Your task to perform on an android device: Add beats solo 3 to the cart on target, then select checkout. Image 0: 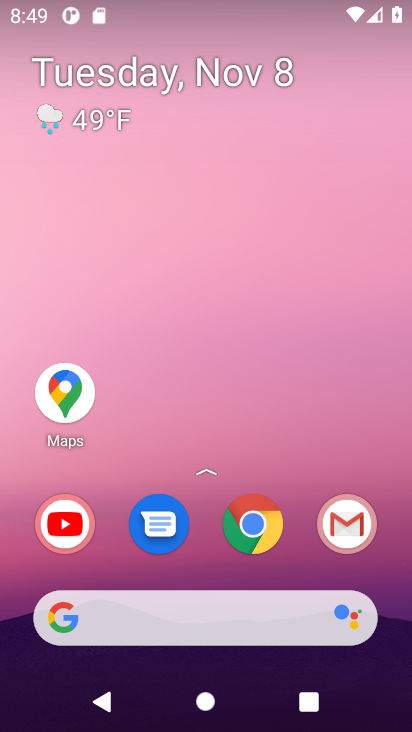
Step 0: click (262, 523)
Your task to perform on an android device: Add beats solo 3 to the cart on target, then select checkout. Image 1: 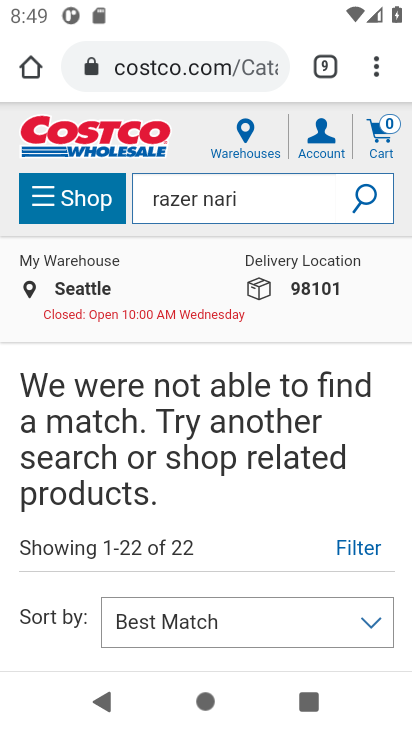
Step 1: click (145, 82)
Your task to perform on an android device: Add beats solo 3 to the cart on target, then select checkout. Image 2: 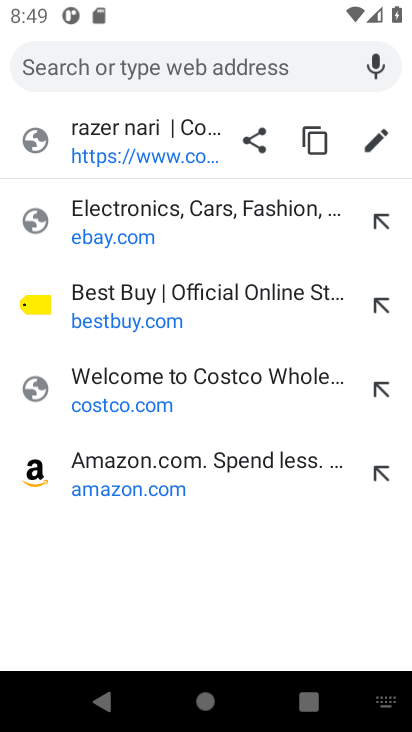
Step 2: type "target.com"
Your task to perform on an android device: Add beats solo 3 to the cart on target, then select checkout. Image 3: 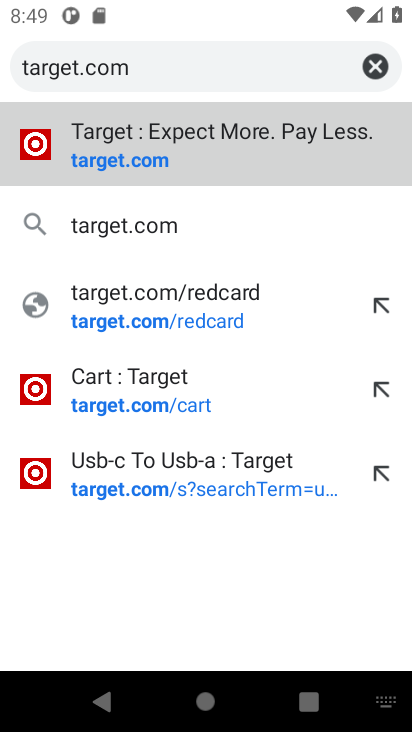
Step 3: click (117, 158)
Your task to perform on an android device: Add beats solo 3 to the cart on target, then select checkout. Image 4: 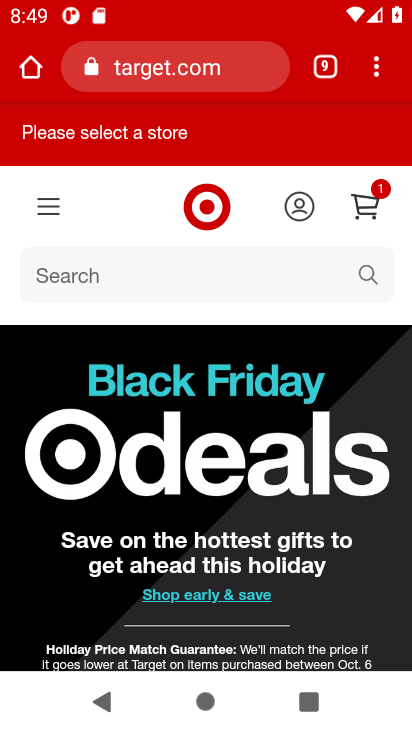
Step 4: click (362, 277)
Your task to perform on an android device: Add beats solo 3 to the cart on target, then select checkout. Image 5: 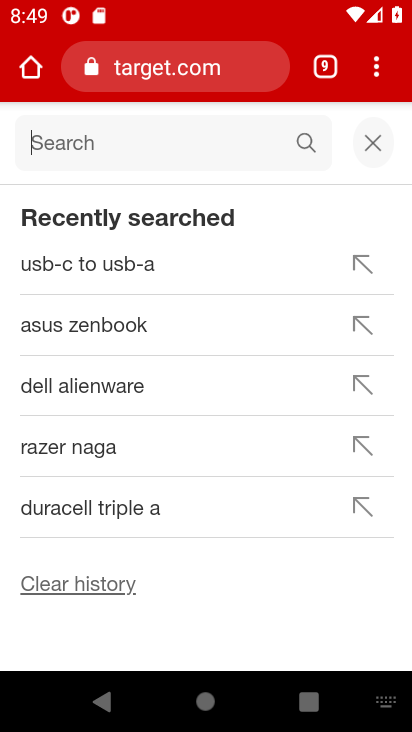
Step 5: type "beats solo 3"
Your task to perform on an android device: Add beats solo 3 to the cart on target, then select checkout. Image 6: 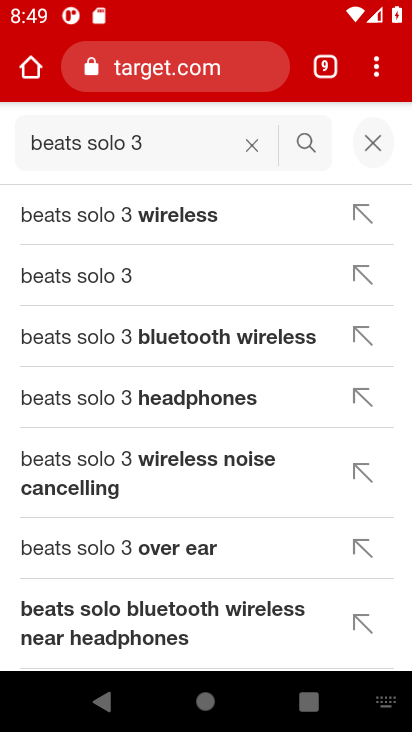
Step 6: click (65, 272)
Your task to perform on an android device: Add beats solo 3 to the cart on target, then select checkout. Image 7: 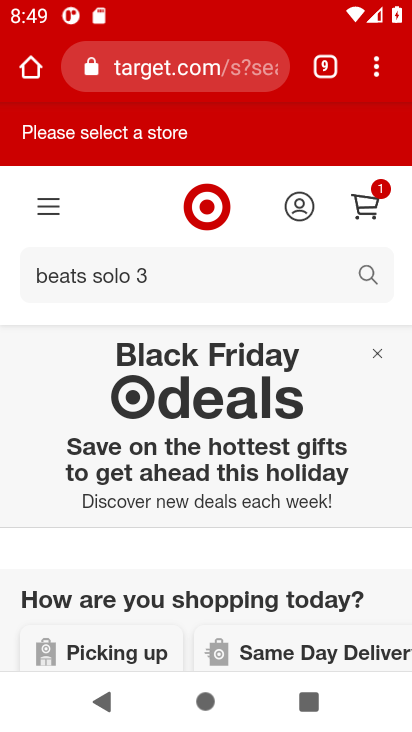
Step 7: drag from (186, 450) to (160, 224)
Your task to perform on an android device: Add beats solo 3 to the cart on target, then select checkout. Image 8: 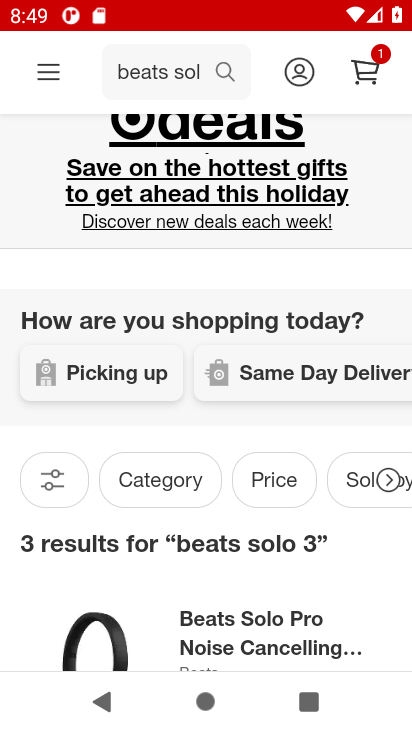
Step 8: drag from (163, 548) to (136, 249)
Your task to perform on an android device: Add beats solo 3 to the cart on target, then select checkout. Image 9: 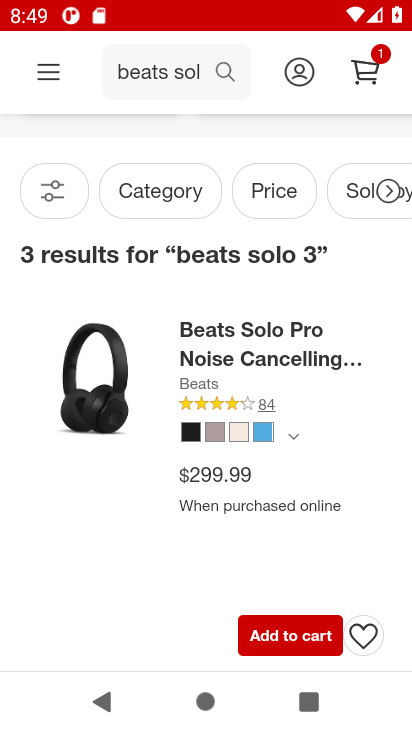
Step 9: drag from (162, 519) to (132, 106)
Your task to perform on an android device: Add beats solo 3 to the cart on target, then select checkout. Image 10: 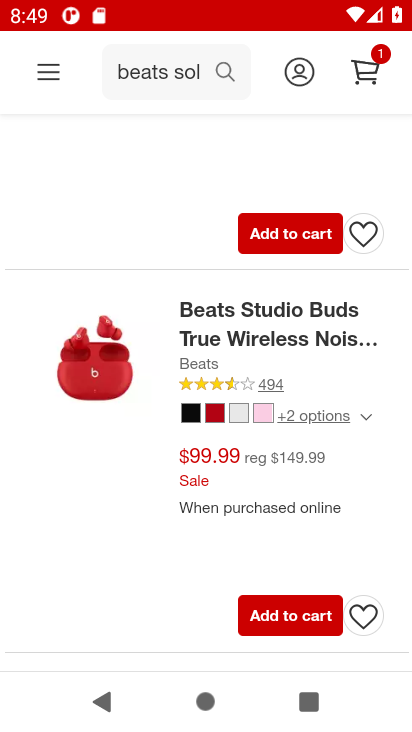
Step 10: drag from (159, 426) to (143, 90)
Your task to perform on an android device: Add beats solo 3 to the cart on target, then select checkout. Image 11: 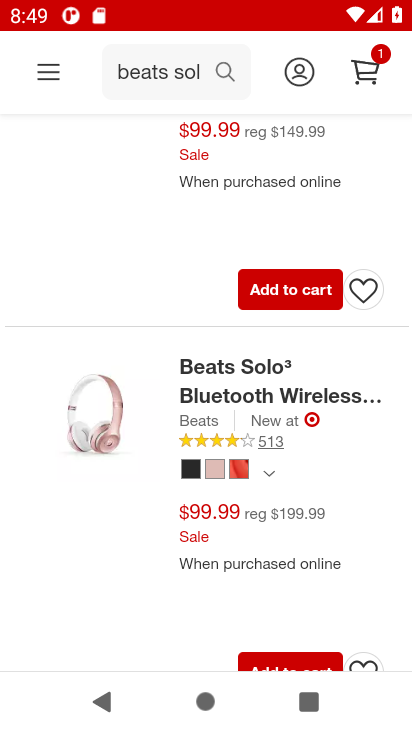
Step 11: drag from (161, 450) to (152, 331)
Your task to perform on an android device: Add beats solo 3 to the cart on target, then select checkout. Image 12: 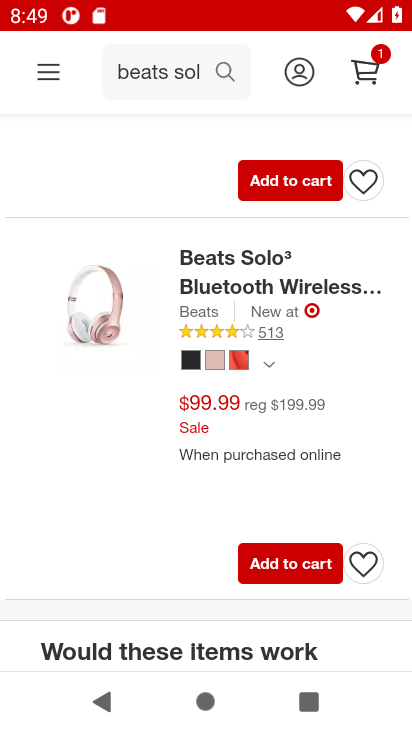
Step 12: click (298, 561)
Your task to perform on an android device: Add beats solo 3 to the cart on target, then select checkout. Image 13: 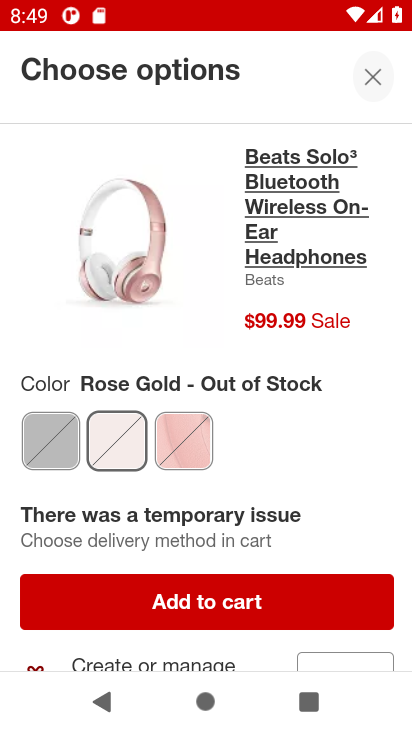
Step 13: drag from (259, 547) to (233, 249)
Your task to perform on an android device: Add beats solo 3 to the cart on target, then select checkout. Image 14: 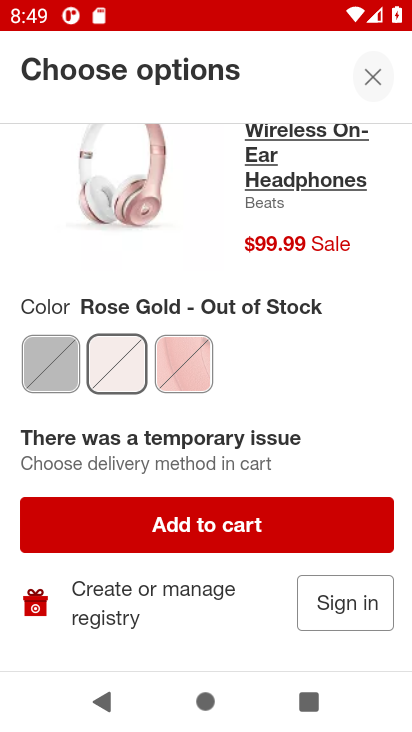
Step 14: click (206, 519)
Your task to perform on an android device: Add beats solo 3 to the cart on target, then select checkout. Image 15: 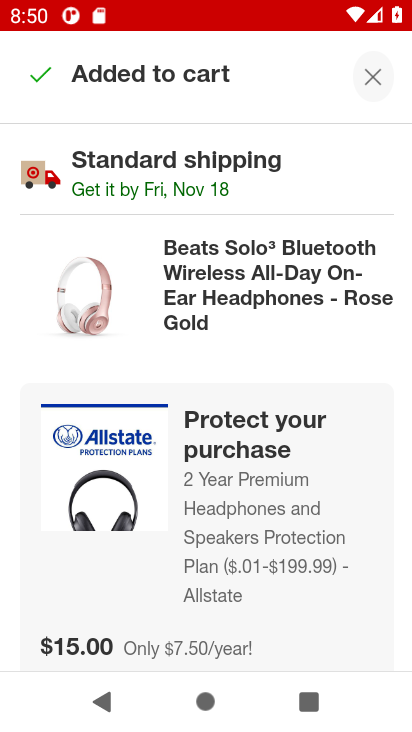
Step 15: drag from (241, 524) to (205, 264)
Your task to perform on an android device: Add beats solo 3 to the cart on target, then select checkout. Image 16: 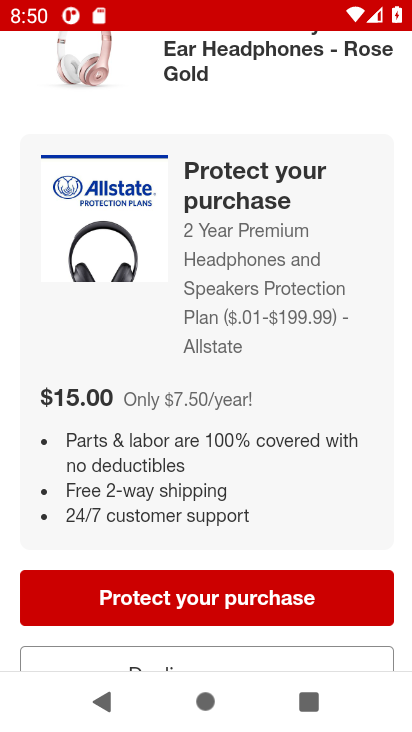
Step 16: drag from (197, 504) to (186, 279)
Your task to perform on an android device: Add beats solo 3 to the cart on target, then select checkout. Image 17: 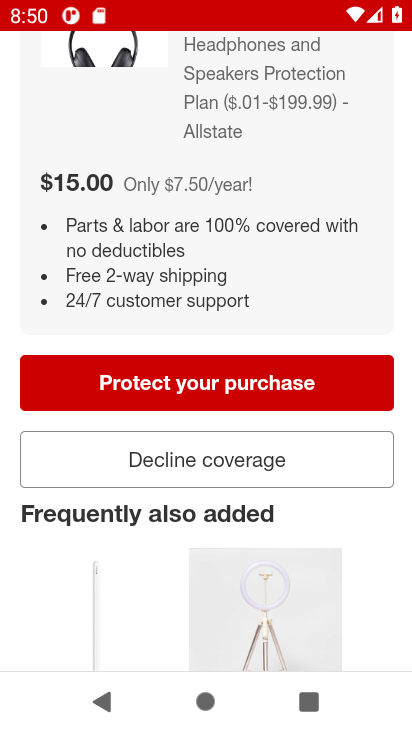
Step 17: drag from (239, 220) to (221, 606)
Your task to perform on an android device: Add beats solo 3 to the cart on target, then select checkout. Image 18: 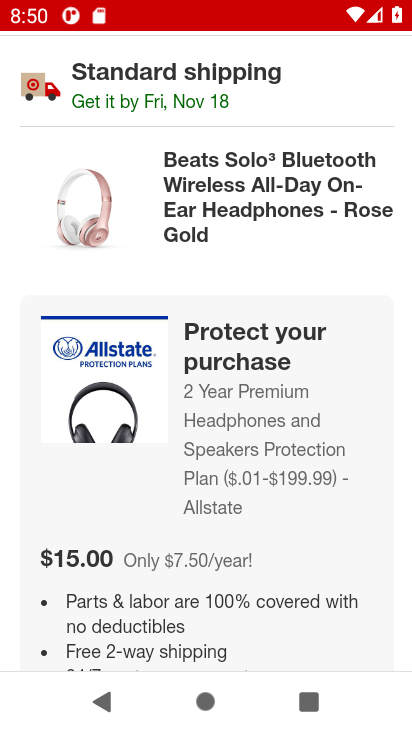
Step 18: drag from (343, 101) to (330, 358)
Your task to perform on an android device: Add beats solo 3 to the cart on target, then select checkout. Image 19: 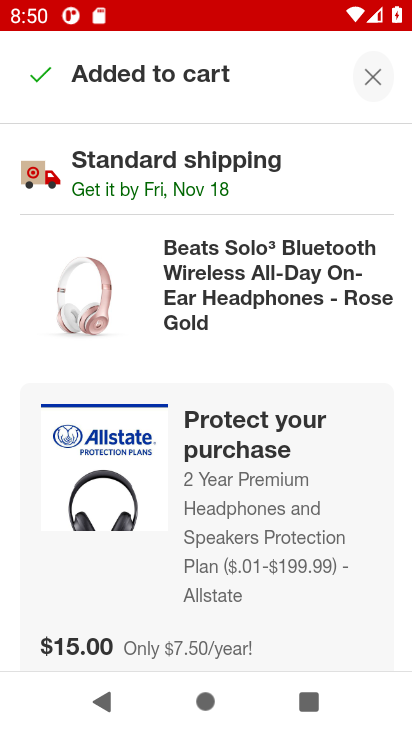
Step 19: click (374, 82)
Your task to perform on an android device: Add beats solo 3 to the cart on target, then select checkout. Image 20: 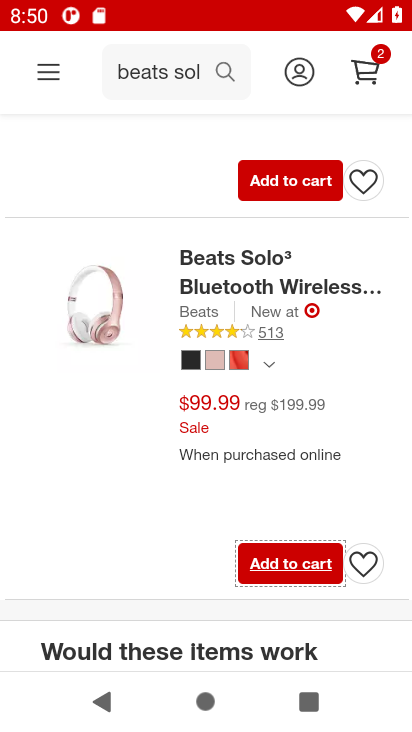
Step 20: click (366, 65)
Your task to perform on an android device: Add beats solo 3 to the cart on target, then select checkout. Image 21: 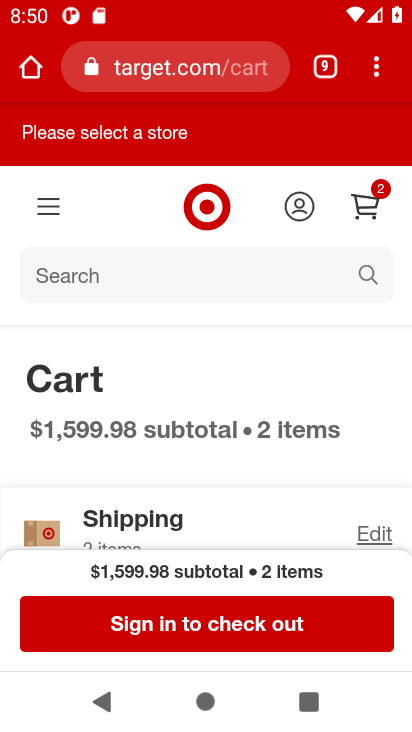
Step 21: click (228, 619)
Your task to perform on an android device: Add beats solo 3 to the cart on target, then select checkout. Image 22: 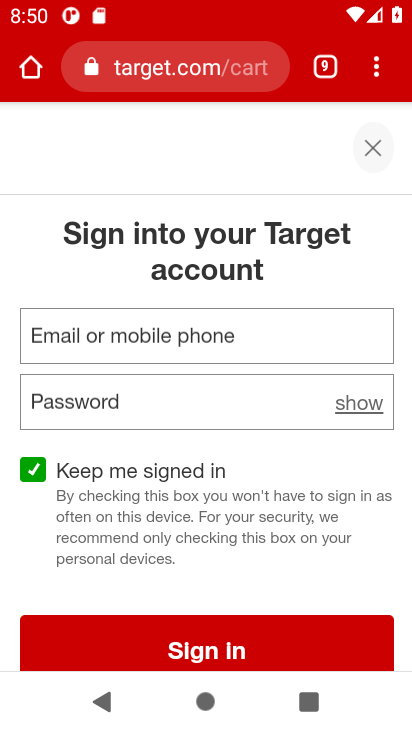
Step 22: task complete